Your task to perform on an android device: turn on sleep mode Image 0: 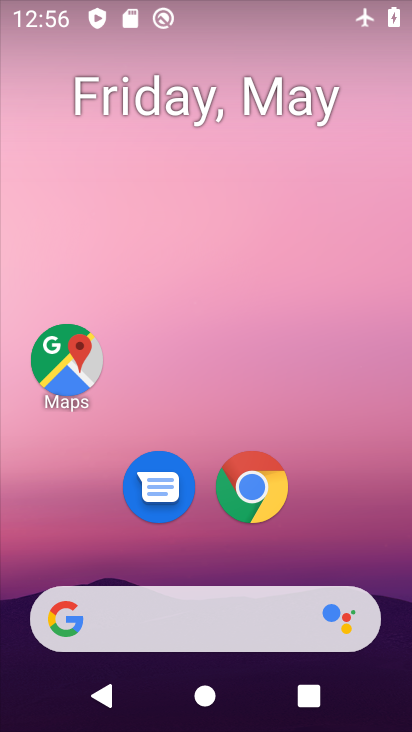
Step 0: drag from (195, 529) to (223, 88)
Your task to perform on an android device: turn on sleep mode Image 1: 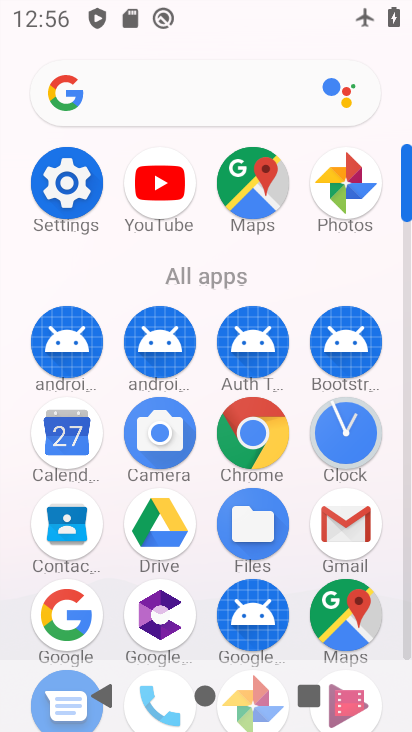
Step 1: click (48, 168)
Your task to perform on an android device: turn on sleep mode Image 2: 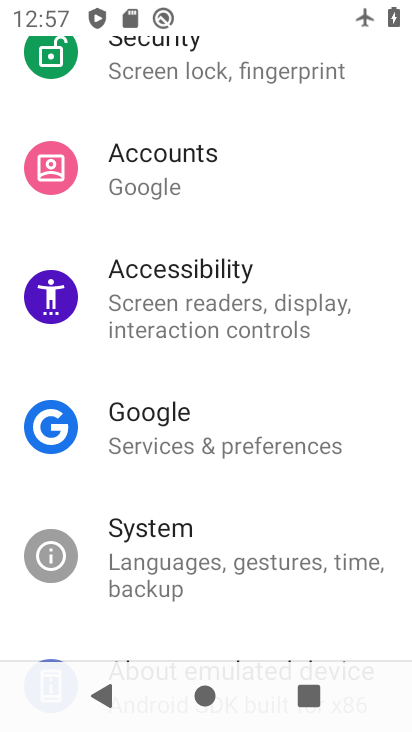
Step 2: task complete